Your task to perform on an android device: set an alarm Image 0: 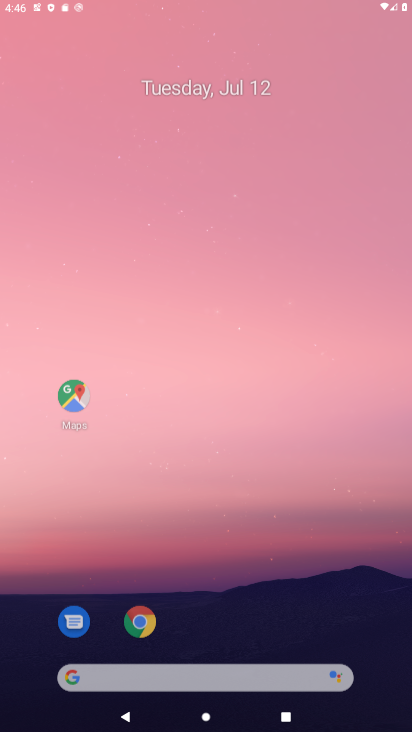
Step 0: press home button
Your task to perform on an android device: set an alarm Image 1: 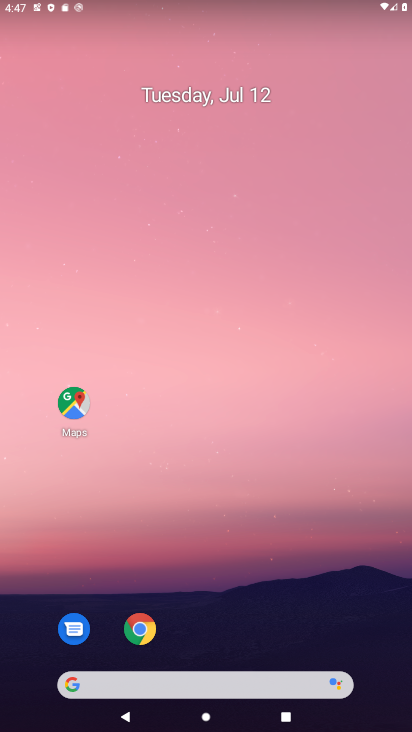
Step 1: drag from (241, 598) to (241, 441)
Your task to perform on an android device: set an alarm Image 2: 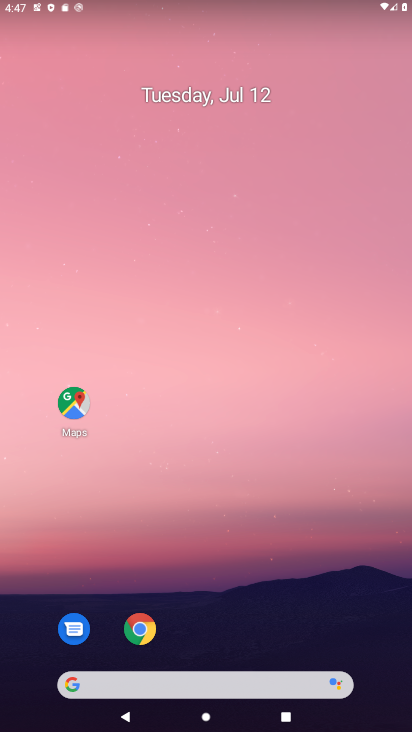
Step 2: drag from (204, 628) to (232, 19)
Your task to perform on an android device: set an alarm Image 3: 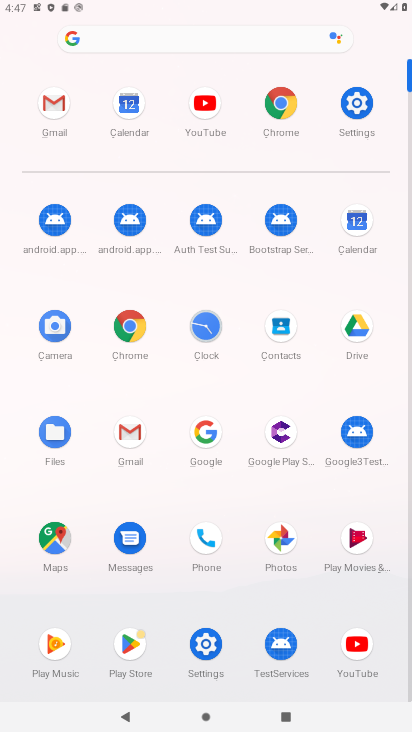
Step 3: click (203, 333)
Your task to perform on an android device: set an alarm Image 4: 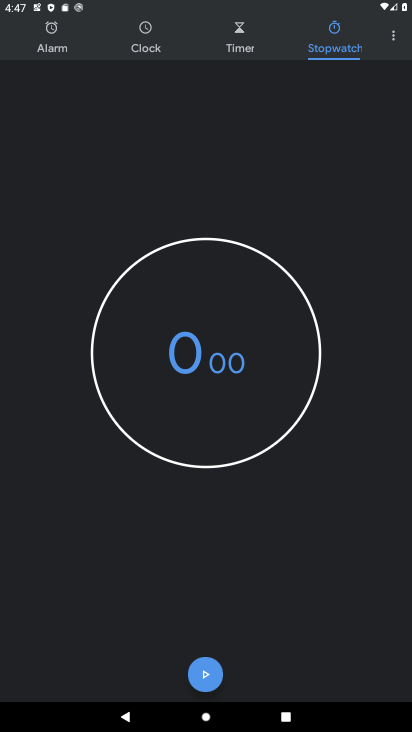
Step 4: click (46, 43)
Your task to perform on an android device: set an alarm Image 5: 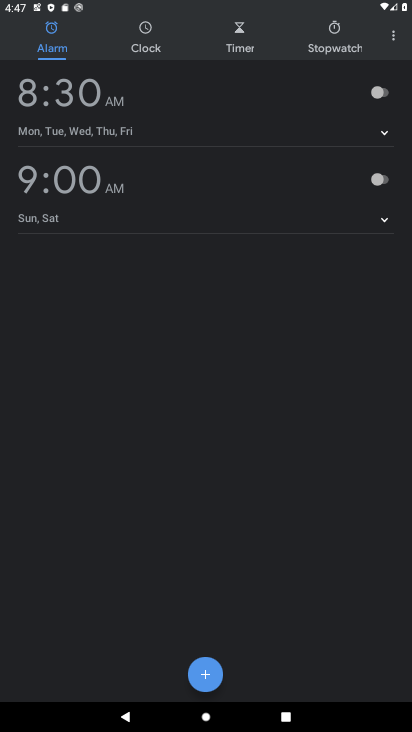
Step 5: click (383, 94)
Your task to perform on an android device: set an alarm Image 6: 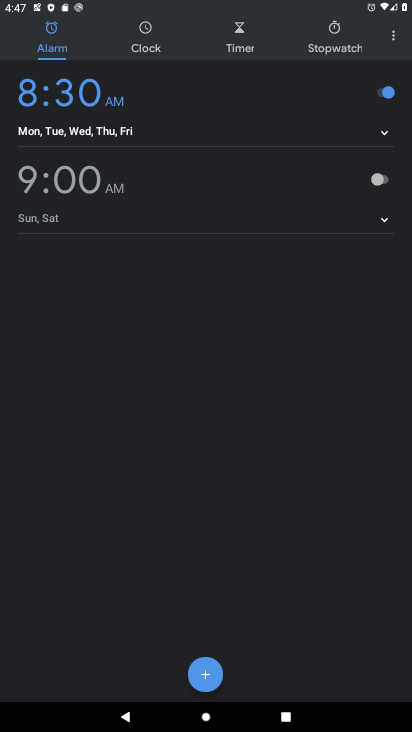
Step 6: task complete